Your task to perform on an android device: Search for a new eyeliner Image 0: 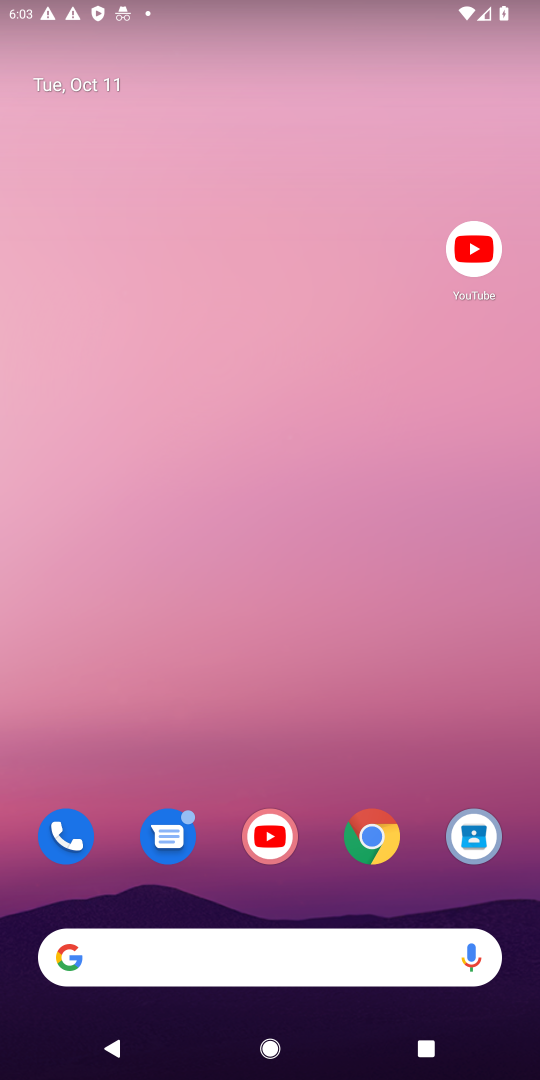
Step 0: click (377, 839)
Your task to perform on an android device: Search for a new eyeliner Image 1: 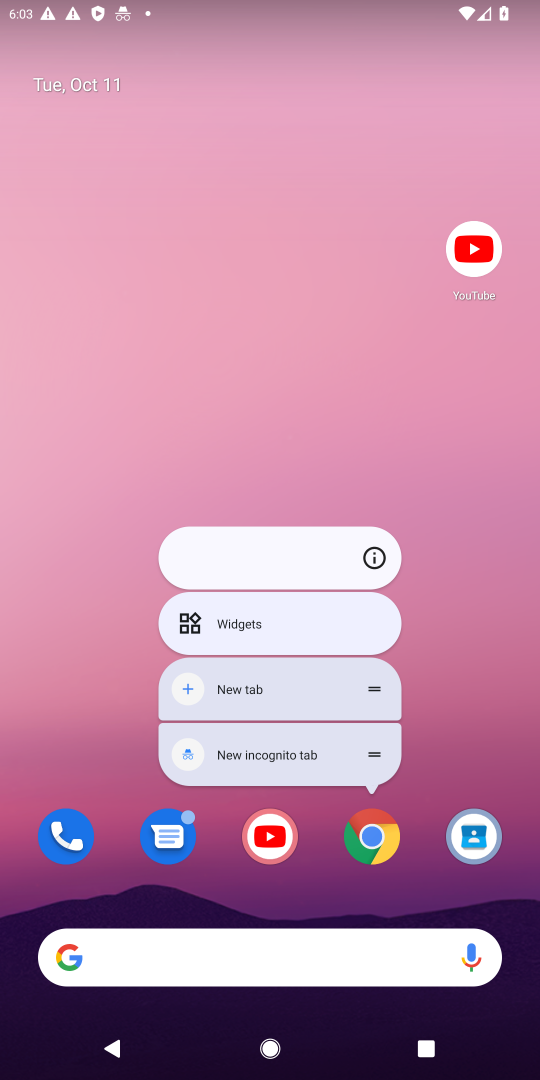
Step 1: click (372, 844)
Your task to perform on an android device: Search for a new eyeliner Image 2: 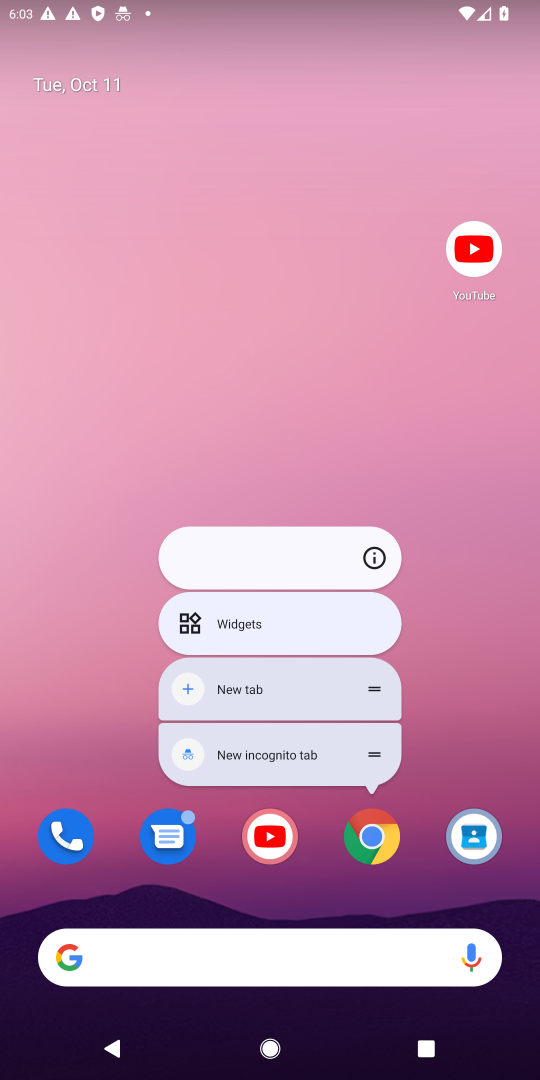
Step 2: click (372, 848)
Your task to perform on an android device: Search for a new eyeliner Image 3: 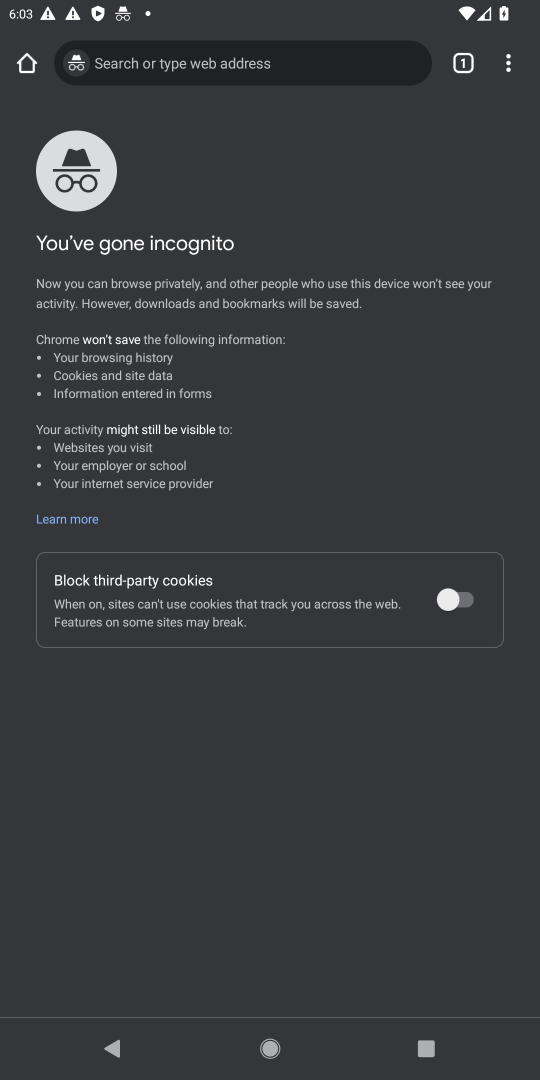
Step 3: drag from (515, 59) to (333, 180)
Your task to perform on an android device: Search for a new eyeliner Image 4: 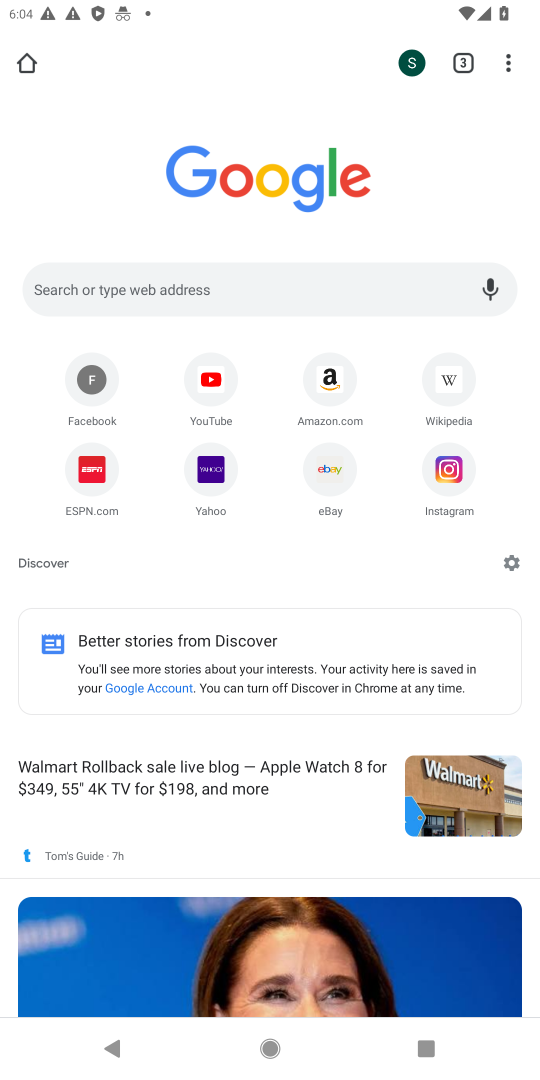
Step 4: click (225, 277)
Your task to perform on an android device: Search for a new eyeliner Image 5: 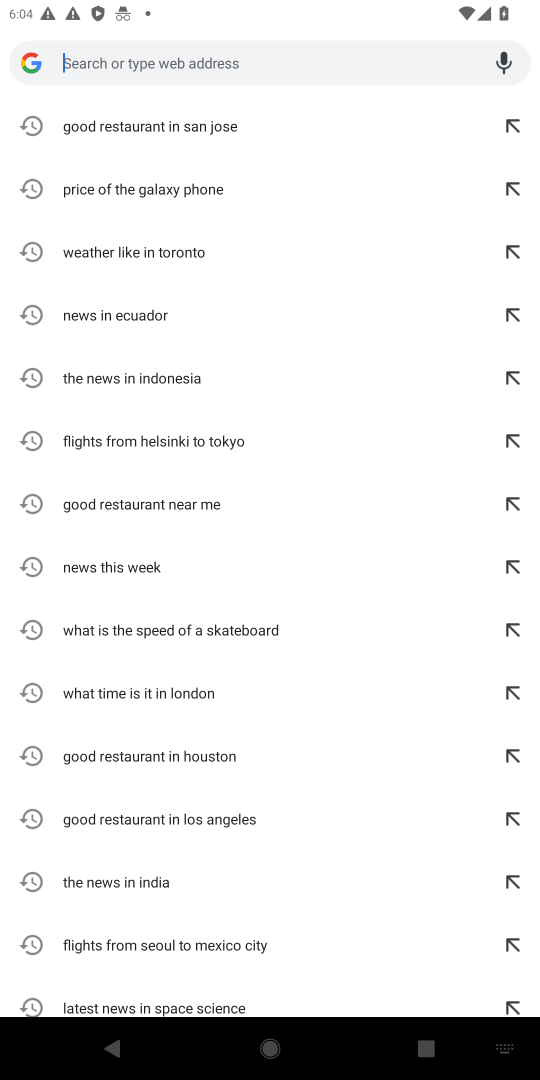
Step 5: type " new eyeliner"
Your task to perform on an android device: Search for a new eyeliner Image 6: 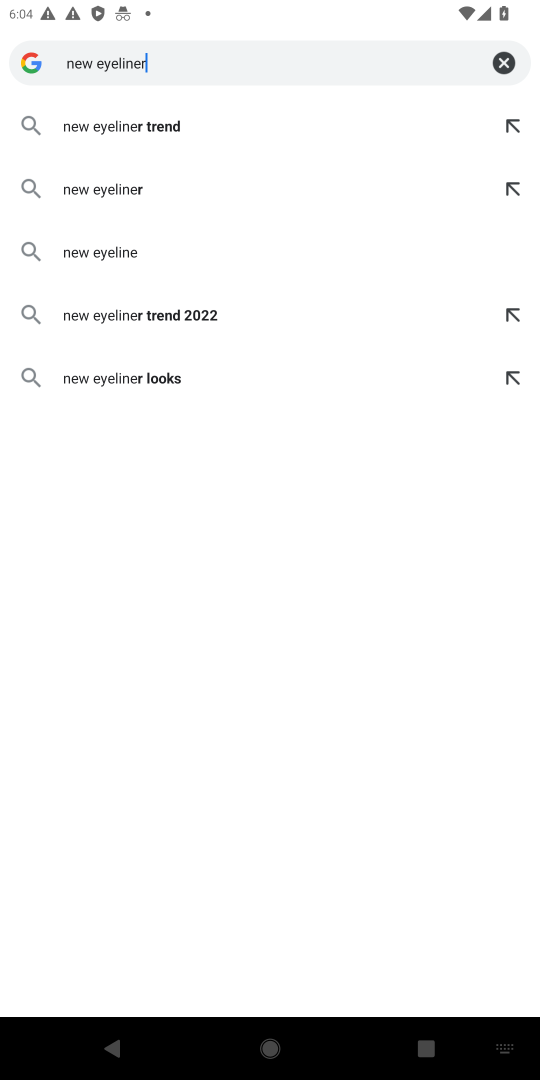
Step 6: press enter
Your task to perform on an android device: Search for a new eyeliner Image 7: 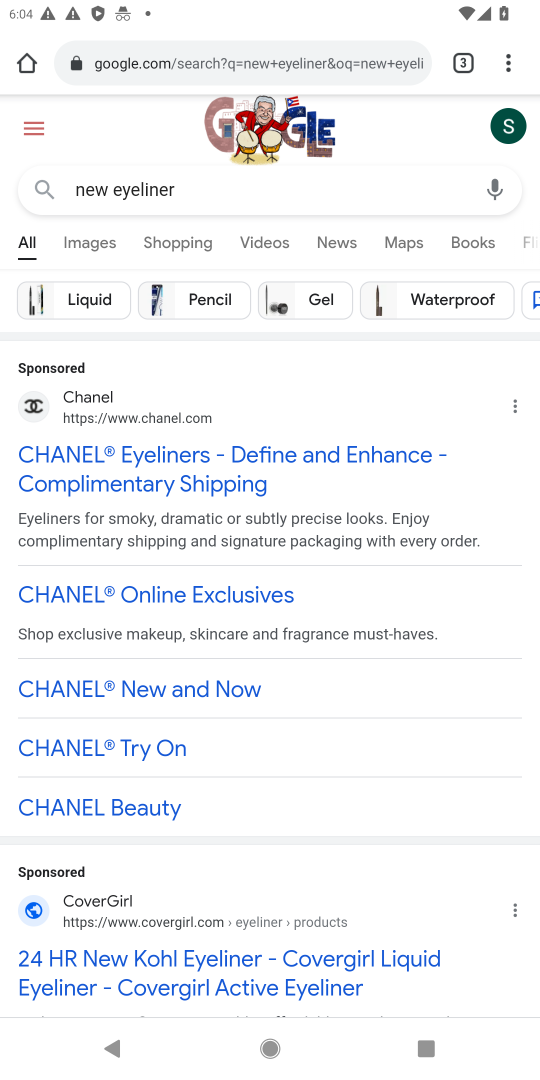
Step 7: drag from (230, 812) to (380, 335)
Your task to perform on an android device: Search for a new eyeliner Image 8: 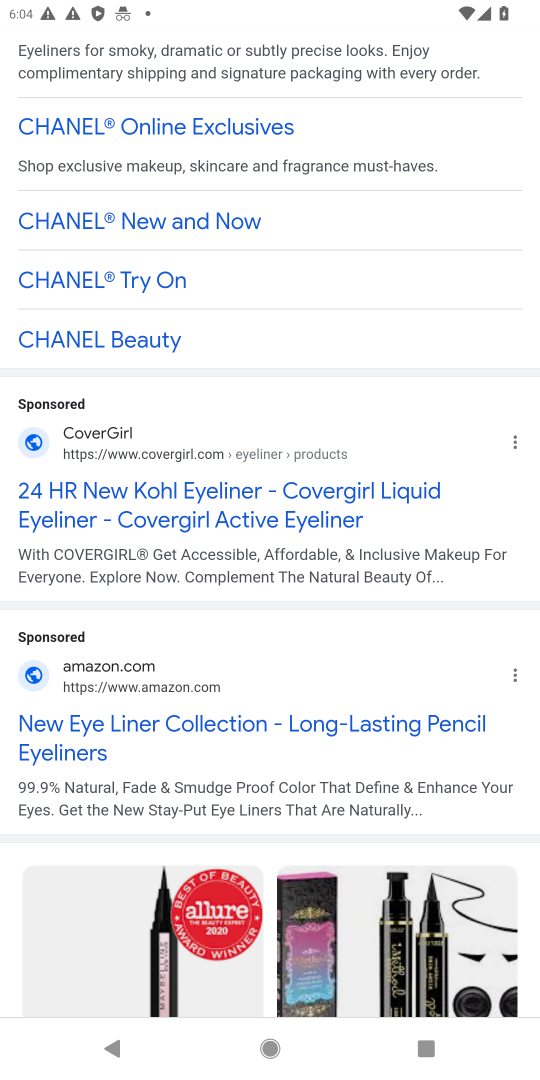
Step 8: click (152, 726)
Your task to perform on an android device: Search for a new eyeliner Image 9: 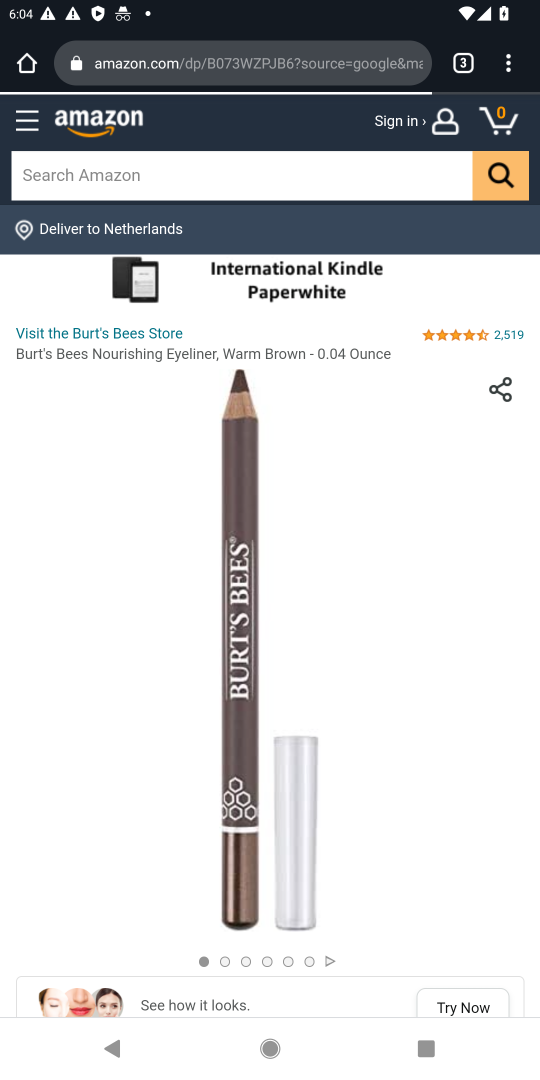
Step 9: task complete